Your task to perform on an android device: Open network settings Image 0: 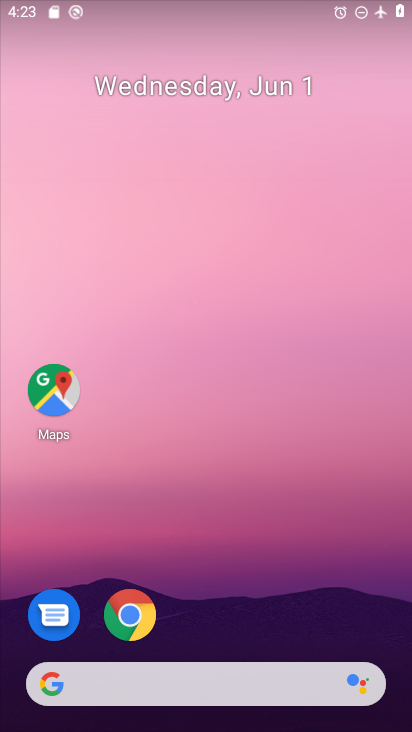
Step 0: drag from (225, 648) to (261, 117)
Your task to perform on an android device: Open network settings Image 1: 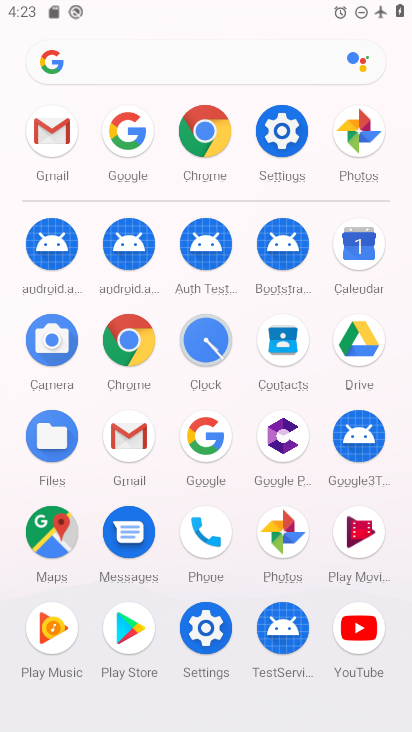
Step 1: click (200, 621)
Your task to perform on an android device: Open network settings Image 2: 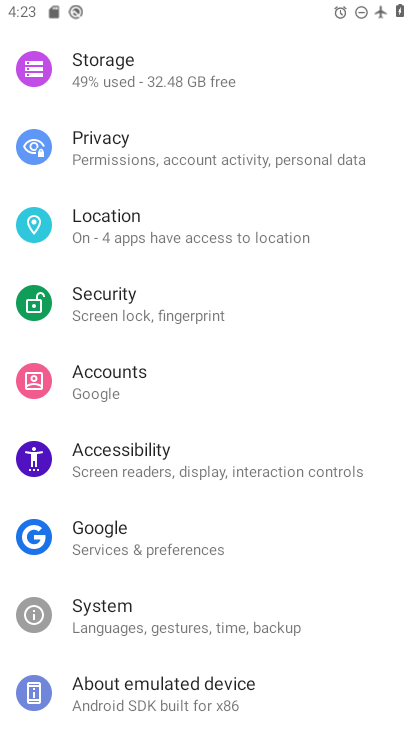
Step 2: drag from (161, 105) to (177, 632)
Your task to perform on an android device: Open network settings Image 3: 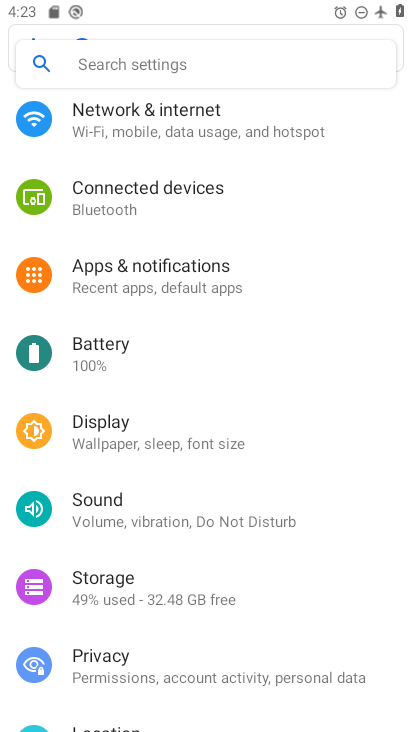
Step 3: click (159, 118)
Your task to perform on an android device: Open network settings Image 4: 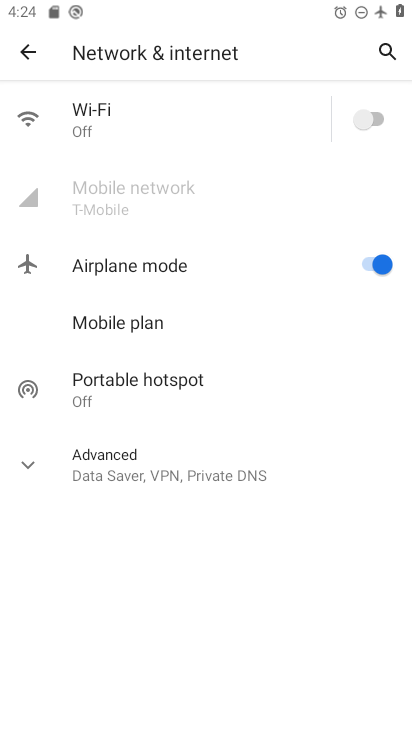
Step 4: click (37, 461)
Your task to perform on an android device: Open network settings Image 5: 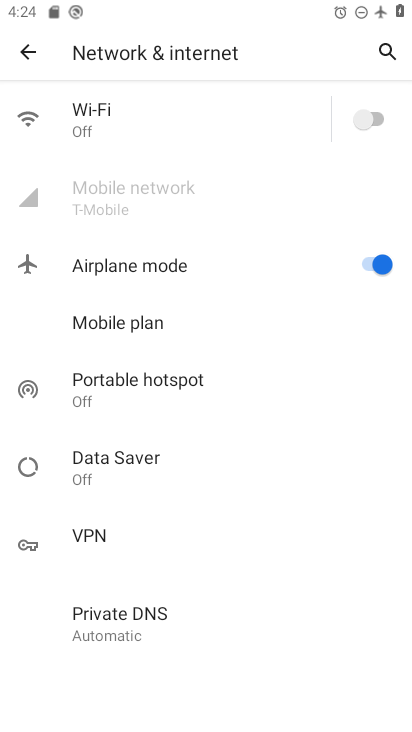
Step 5: task complete